Your task to perform on an android device: Toggle the flashlight Image 0: 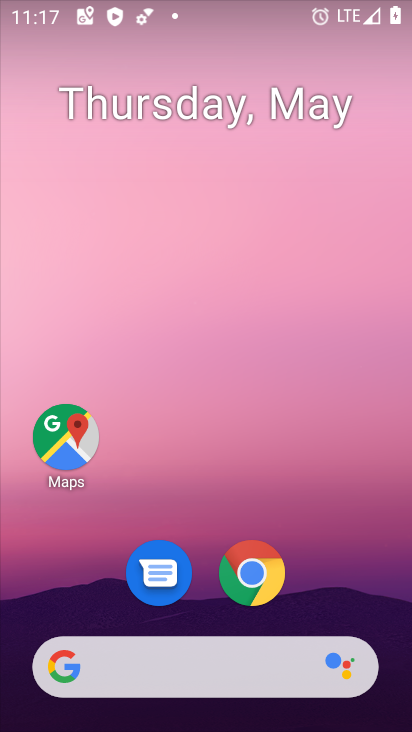
Step 0: drag from (205, 500) to (205, 188)
Your task to perform on an android device: Toggle the flashlight Image 1: 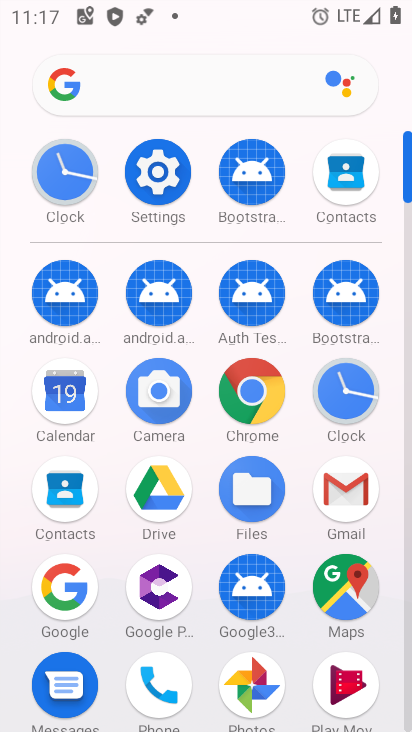
Step 1: click (157, 158)
Your task to perform on an android device: Toggle the flashlight Image 2: 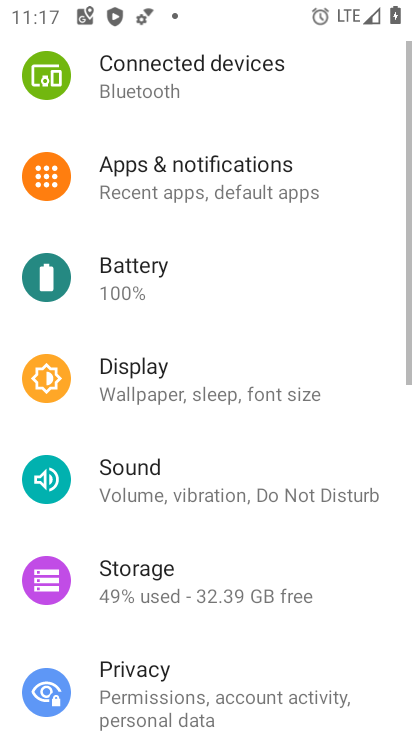
Step 2: task complete